Your task to perform on an android device: Go to ESPN.com Image 0: 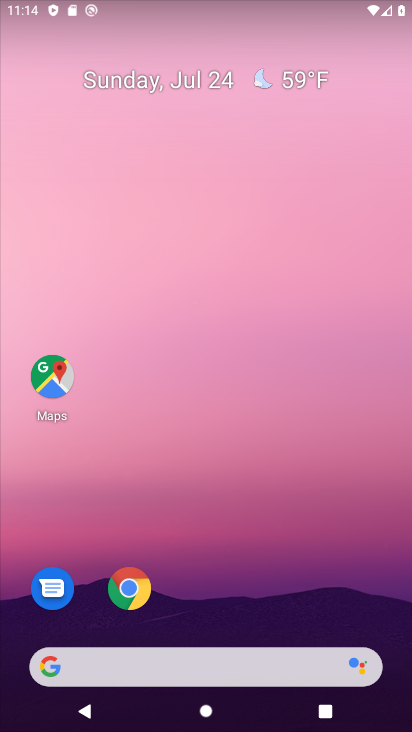
Step 0: drag from (320, 608) to (174, 16)
Your task to perform on an android device: Go to ESPN.com Image 1: 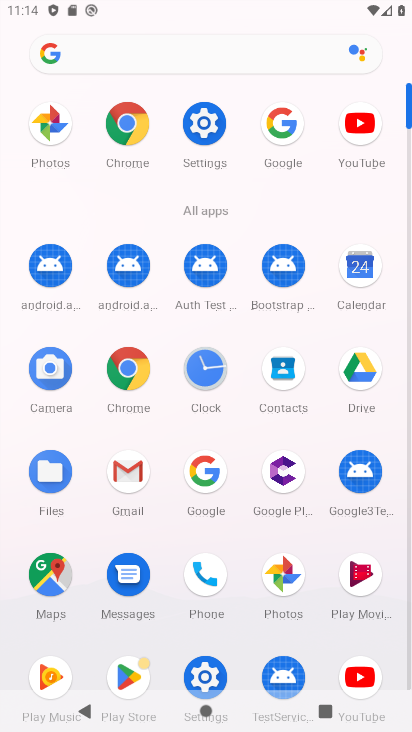
Step 1: click (199, 492)
Your task to perform on an android device: Go to ESPN.com Image 2: 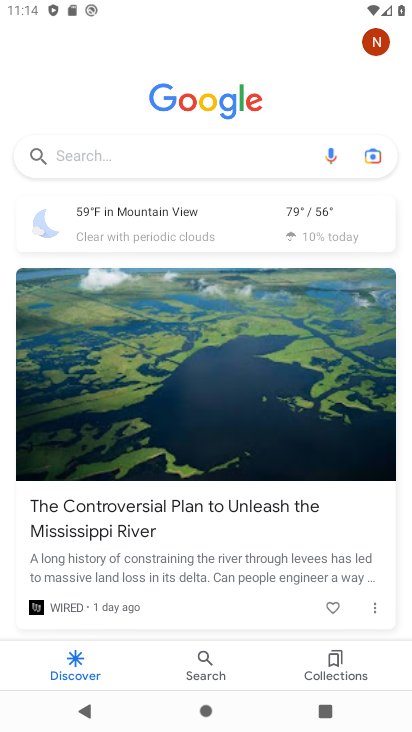
Step 2: click (114, 166)
Your task to perform on an android device: Go to ESPN.com Image 3: 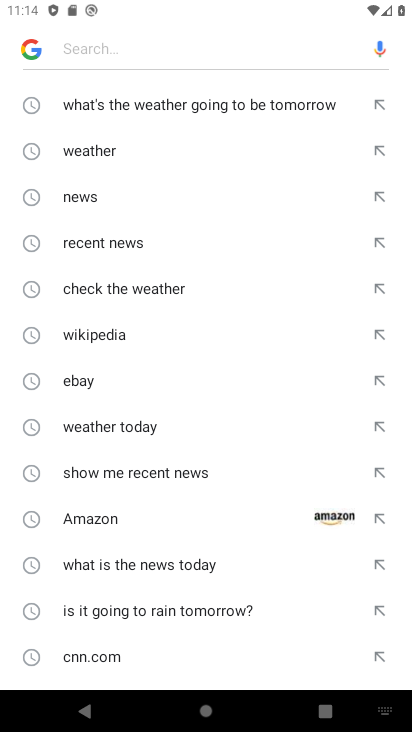
Step 3: type "ESPN.com"
Your task to perform on an android device: Go to ESPN.com Image 4: 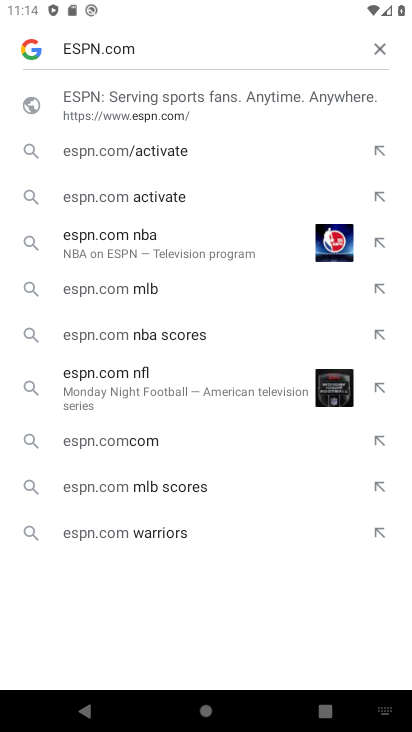
Step 4: click (126, 127)
Your task to perform on an android device: Go to ESPN.com Image 5: 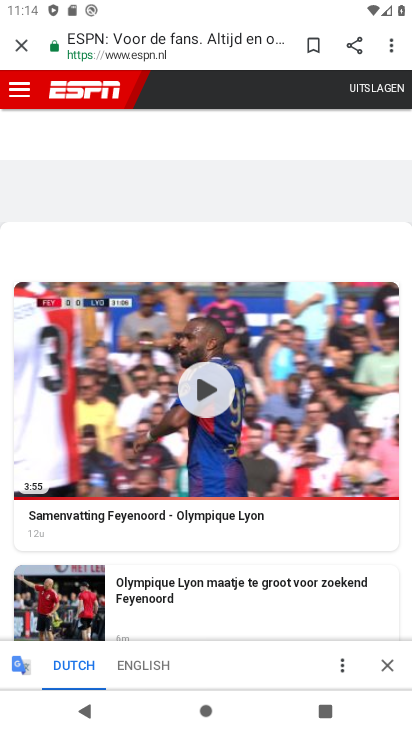
Step 5: task complete